Your task to perform on an android device: turn off airplane mode Image 0: 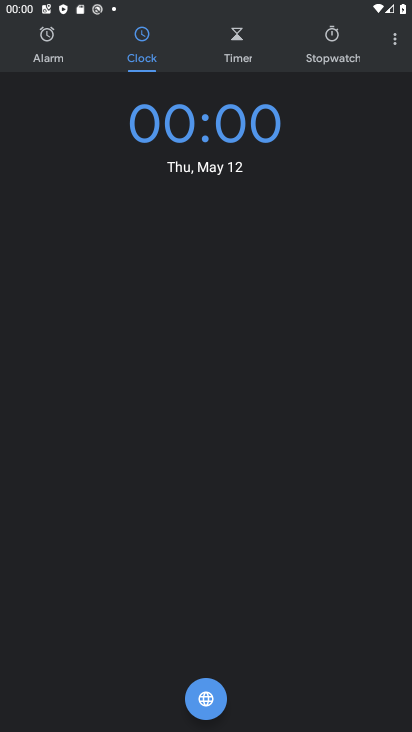
Step 0: press home button
Your task to perform on an android device: turn off airplane mode Image 1: 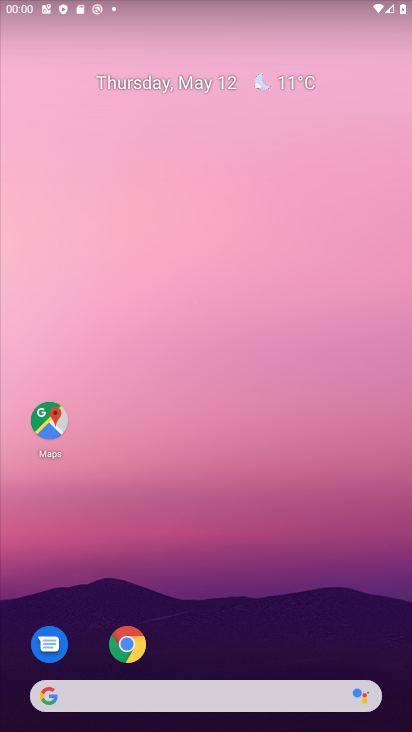
Step 1: task complete